Your task to perform on an android device: remove spam from my inbox in the gmail app Image 0: 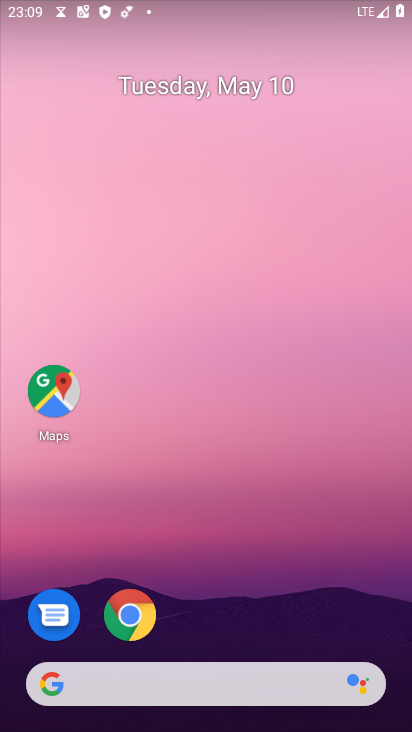
Step 0: drag from (293, 648) to (295, 121)
Your task to perform on an android device: remove spam from my inbox in the gmail app Image 1: 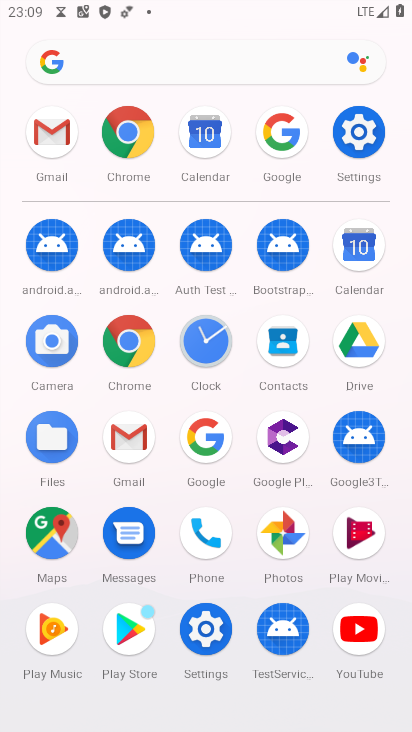
Step 1: click (129, 439)
Your task to perform on an android device: remove spam from my inbox in the gmail app Image 2: 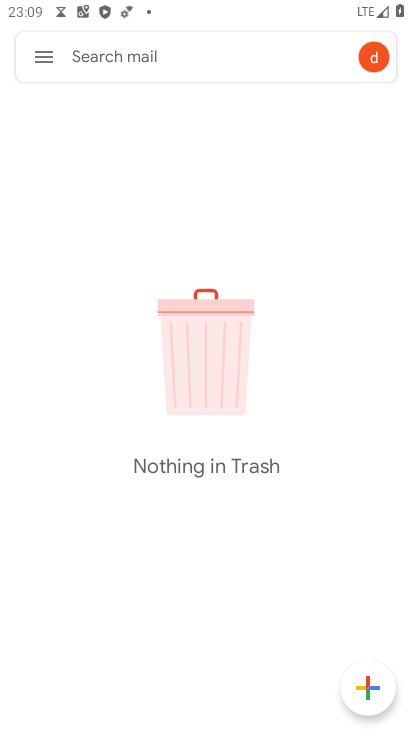
Step 2: click (46, 61)
Your task to perform on an android device: remove spam from my inbox in the gmail app Image 3: 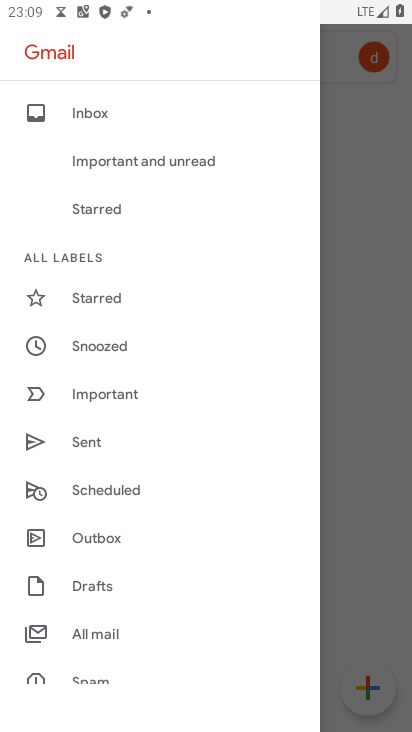
Step 3: drag from (114, 423) to (143, 317)
Your task to perform on an android device: remove spam from my inbox in the gmail app Image 4: 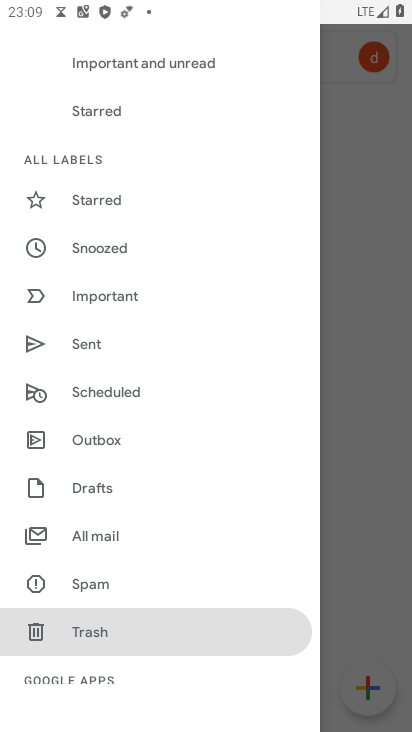
Step 4: drag from (124, 494) to (172, 398)
Your task to perform on an android device: remove spam from my inbox in the gmail app Image 5: 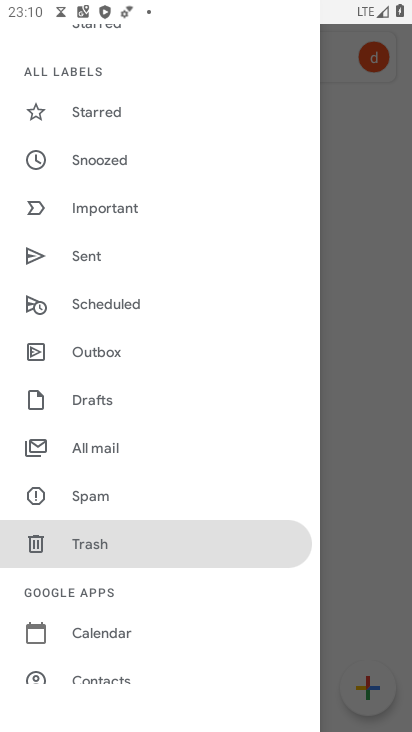
Step 5: click (83, 496)
Your task to perform on an android device: remove spam from my inbox in the gmail app Image 6: 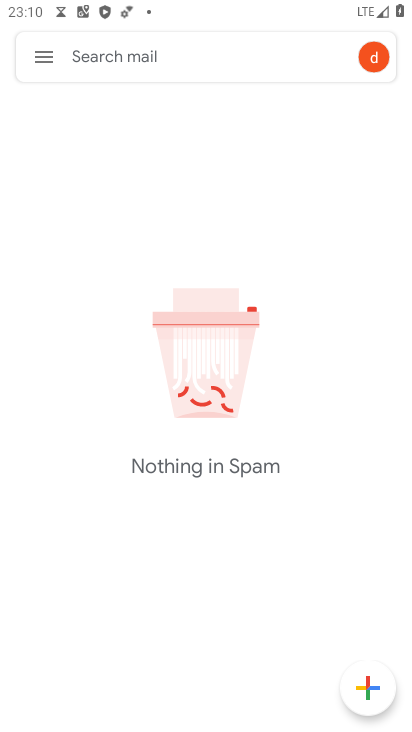
Step 6: task complete